Your task to perform on an android device: Go to location settings Image 0: 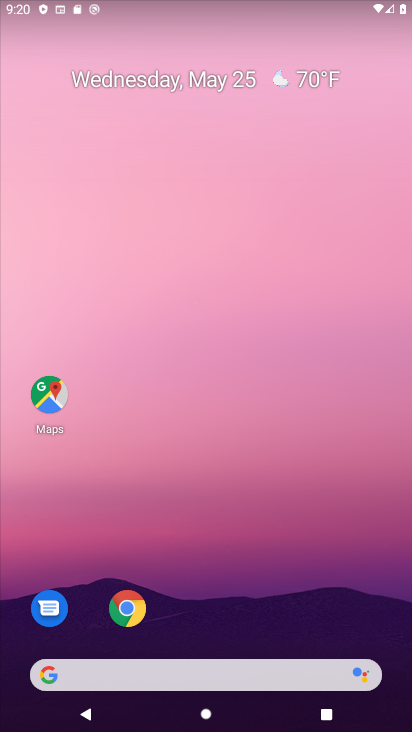
Step 0: drag from (294, 549) to (206, 66)
Your task to perform on an android device: Go to location settings Image 1: 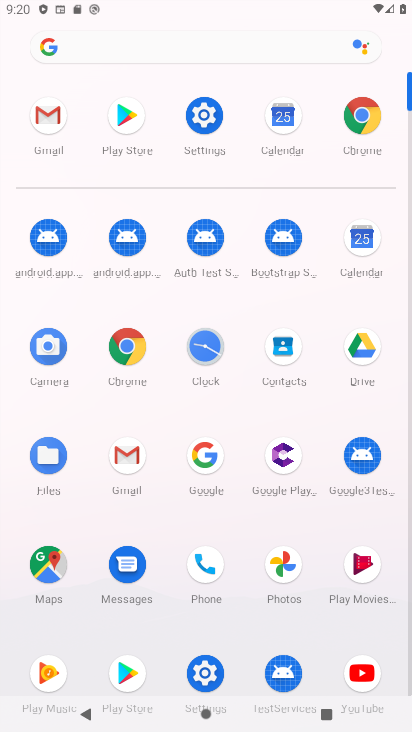
Step 1: click (191, 116)
Your task to perform on an android device: Go to location settings Image 2: 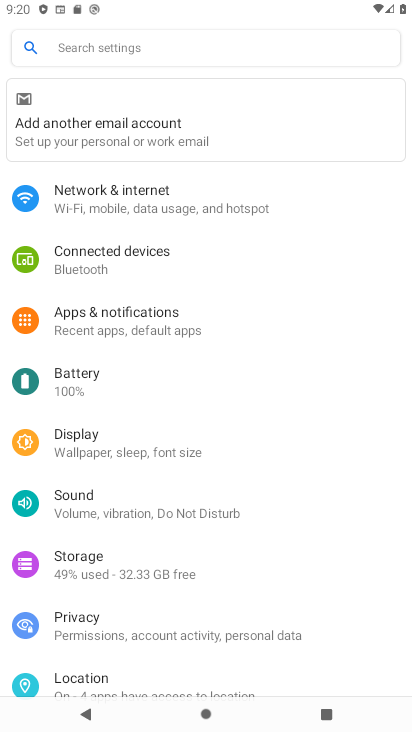
Step 2: click (197, 678)
Your task to perform on an android device: Go to location settings Image 3: 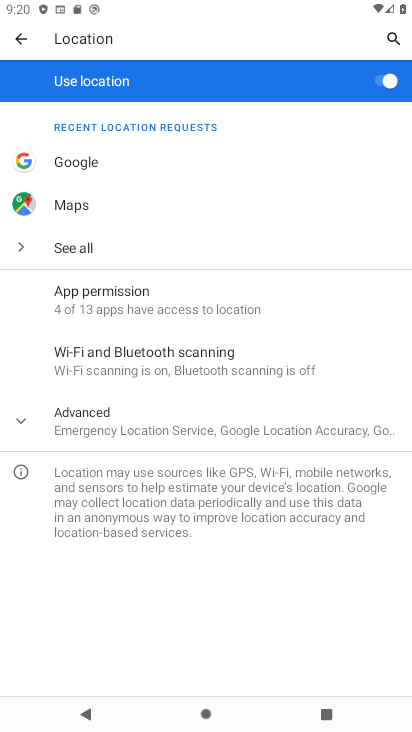
Step 3: task complete